Your task to perform on an android device: turn notification dots on Image 0: 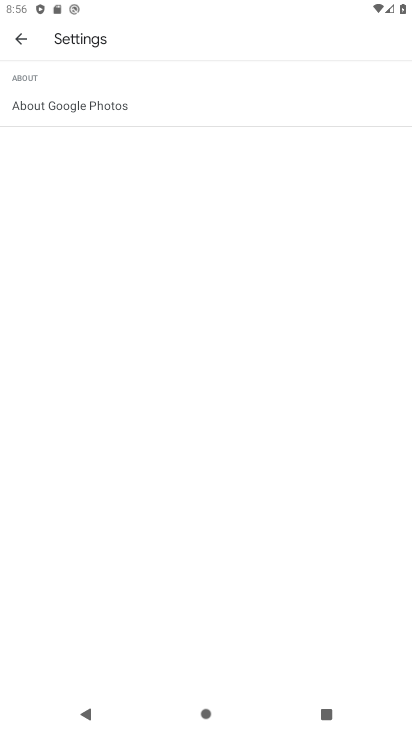
Step 0: drag from (87, 536) to (110, 312)
Your task to perform on an android device: turn notification dots on Image 1: 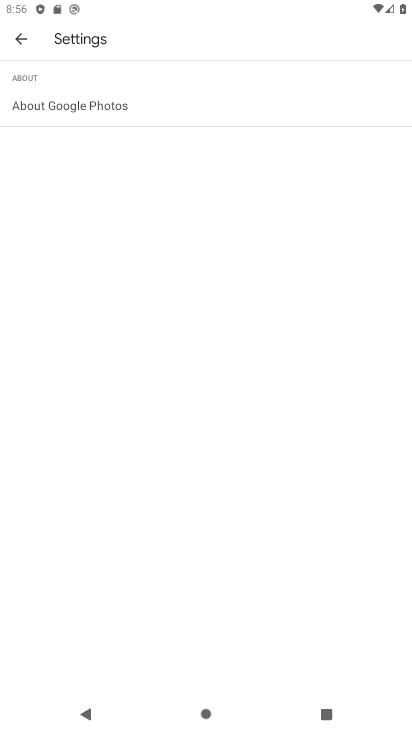
Step 1: press home button
Your task to perform on an android device: turn notification dots on Image 2: 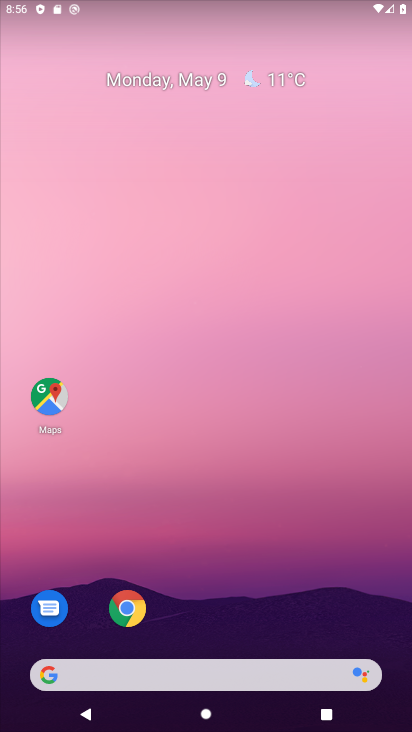
Step 2: drag from (177, 524) to (167, 213)
Your task to perform on an android device: turn notification dots on Image 3: 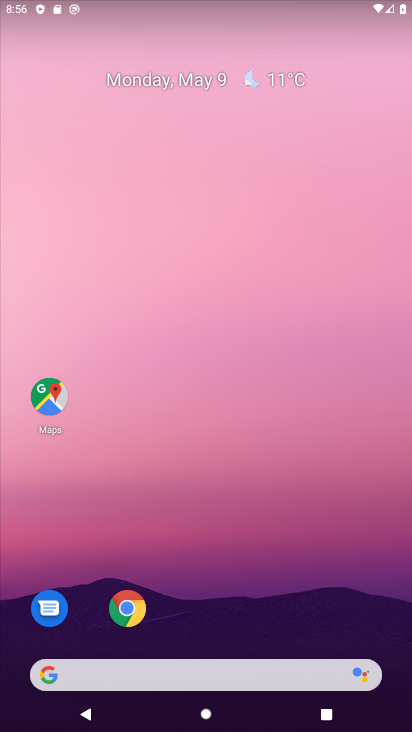
Step 3: drag from (208, 655) to (210, 283)
Your task to perform on an android device: turn notification dots on Image 4: 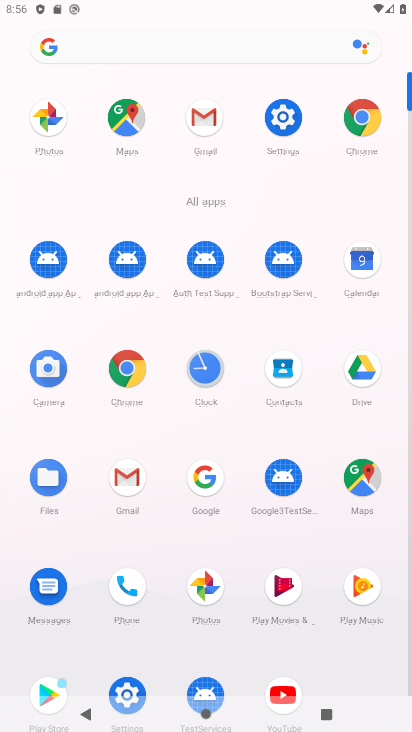
Step 4: click (273, 124)
Your task to perform on an android device: turn notification dots on Image 5: 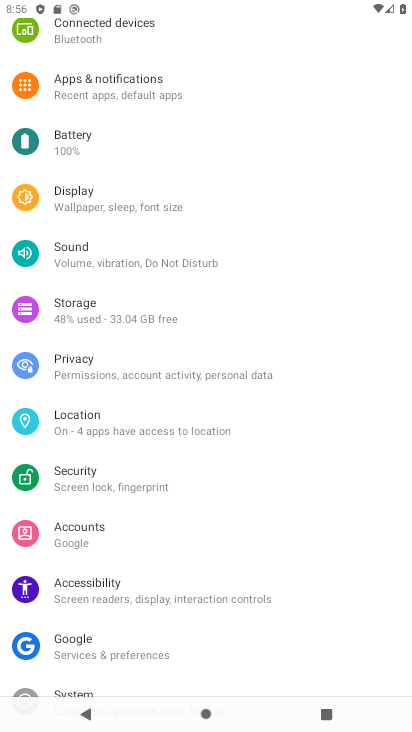
Step 5: drag from (170, 576) to (212, 260)
Your task to perform on an android device: turn notification dots on Image 6: 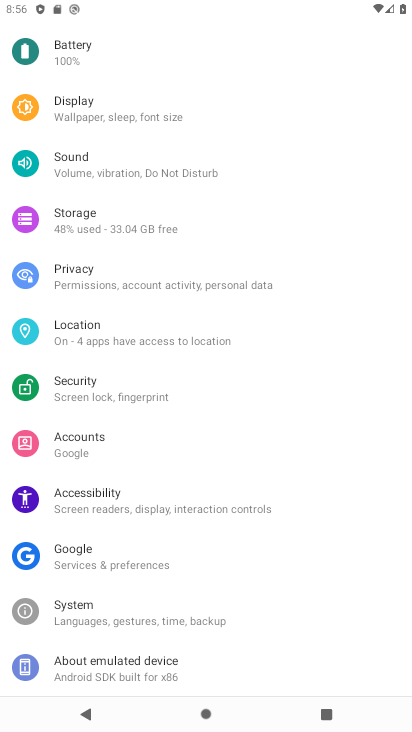
Step 6: drag from (232, 127) to (154, 470)
Your task to perform on an android device: turn notification dots on Image 7: 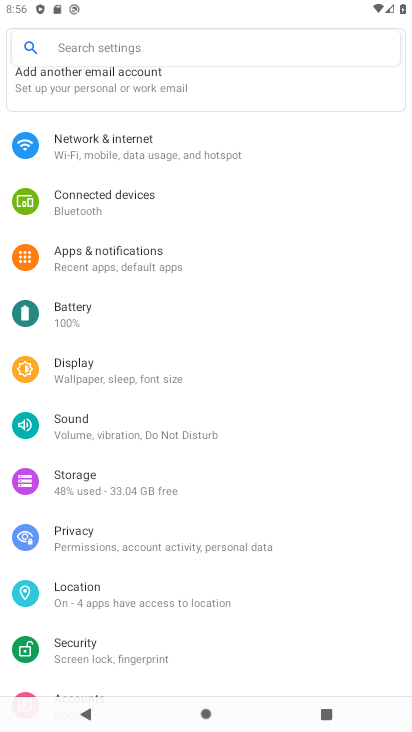
Step 7: click (141, 261)
Your task to perform on an android device: turn notification dots on Image 8: 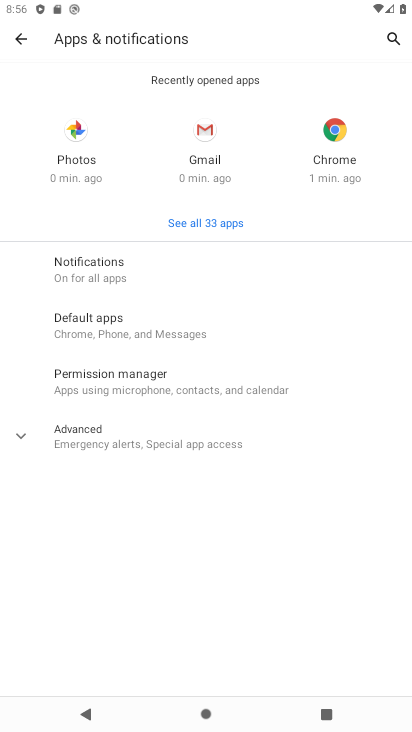
Step 8: click (135, 268)
Your task to perform on an android device: turn notification dots on Image 9: 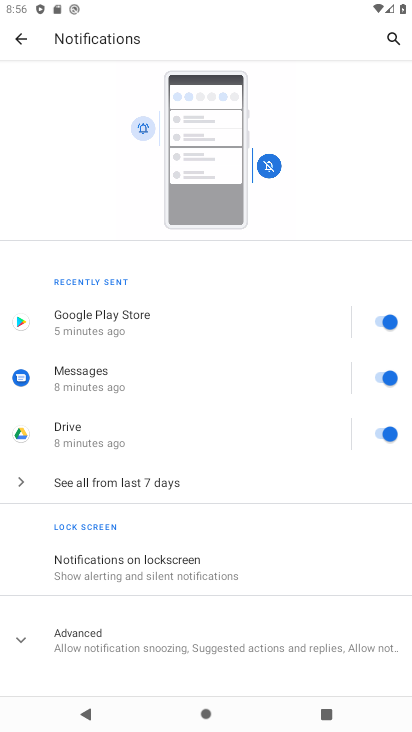
Step 9: drag from (193, 588) to (238, 343)
Your task to perform on an android device: turn notification dots on Image 10: 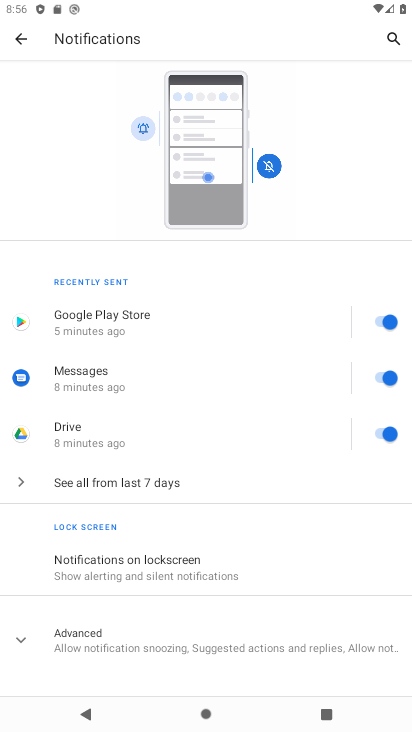
Step 10: click (20, 631)
Your task to perform on an android device: turn notification dots on Image 11: 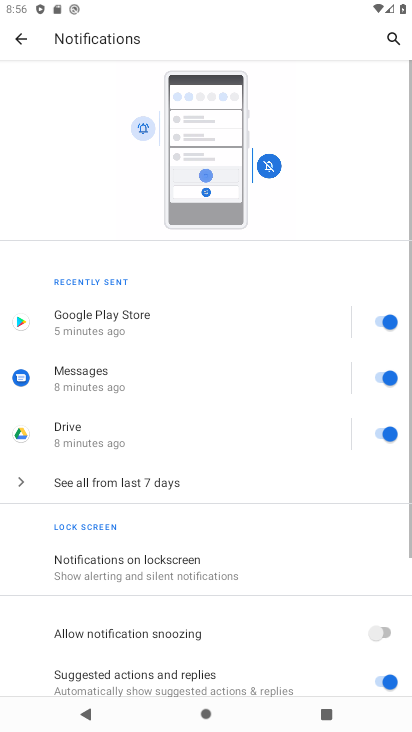
Step 11: task complete